Your task to perform on an android device: empty trash in the gmail app Image 0: 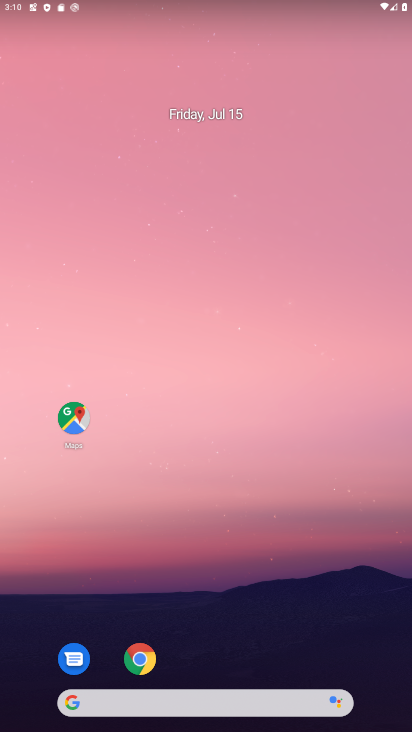
Step 0: drag from (37, 685) to (181, 195)
Your task to perform on an android device: empty trash in the gmail app Image 1: 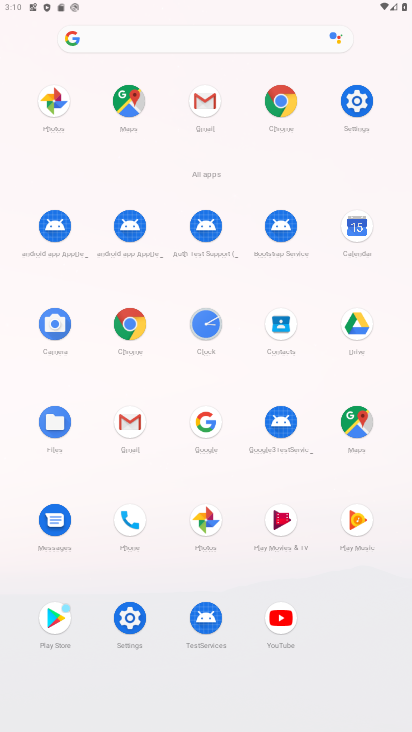
Step 1: click (130, 419)
Your task to perform on an android device: empty trash in the gmail app Image 2: 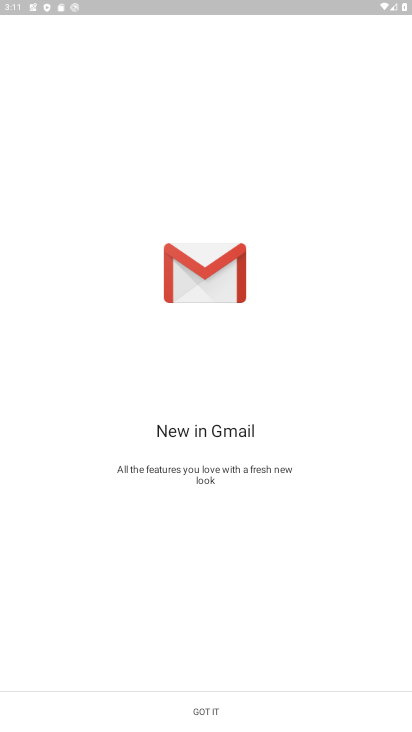
Step 2: click (208, 717)
Your task to perform on an android device: empty trash in the gmail app Image 3: 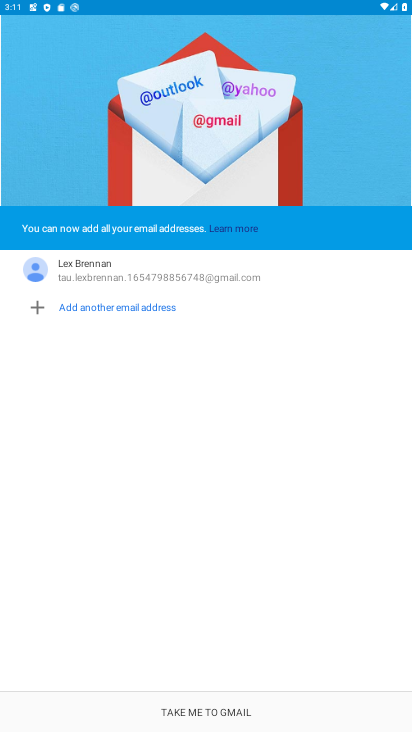
Step 3: click (212, 711)
Your task to perform on an android device: empty trash in the gmail app Image 4: 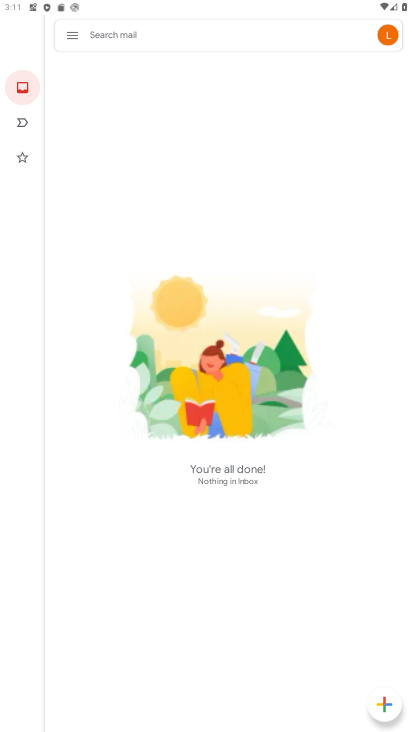
Step 4: click (65, 30)
Your task to perform on an android device: empty trash in the gmail app Image 5: 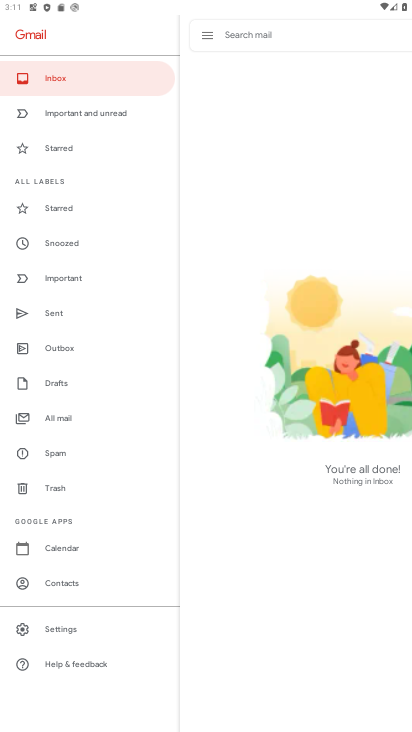
Step 5: click (54, 480)
Your task to perform on an android device: empty trash in the gmail app Image 6: 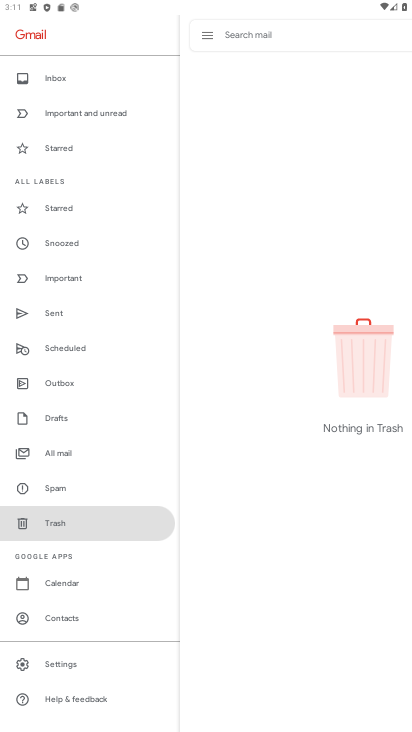
Step 6: click (92, 513)
Your task to perform on an android device: empty trash in the gmail app Image 7: 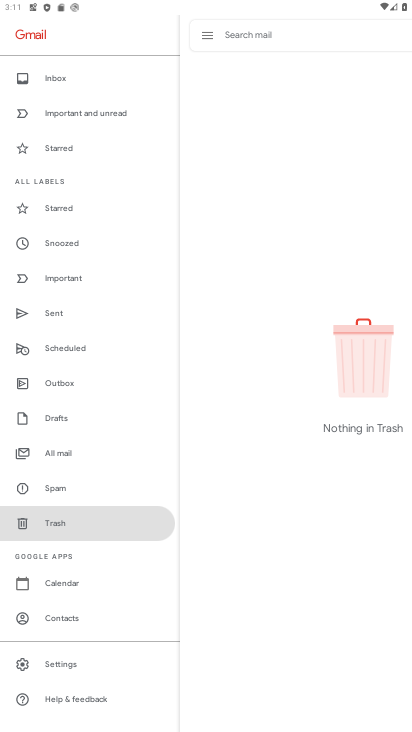
Step 7: task complete